Your task to perform on an android device: What's on my calendar today? Image 0: 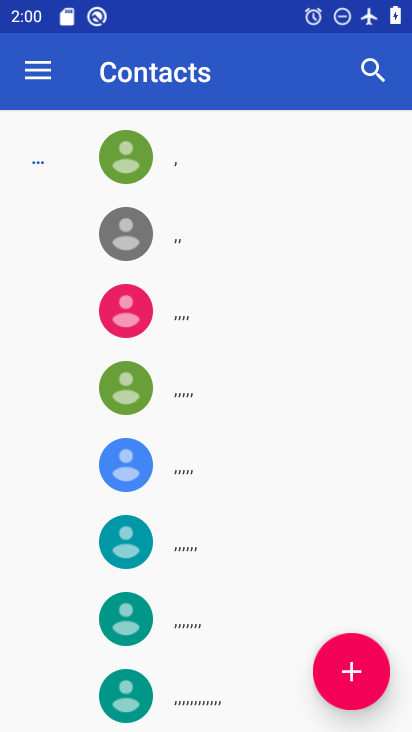
Step 0: press home button
Your task to perform on an android device: What's on my calendar today? Image 1: 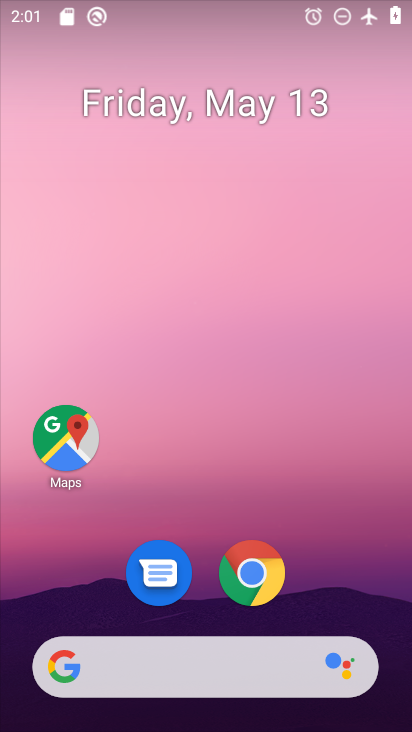
Step 1: drag from (196, 712) to (210, 3)
Your task to perform on an android device: What's on my calendar today? Image 2: 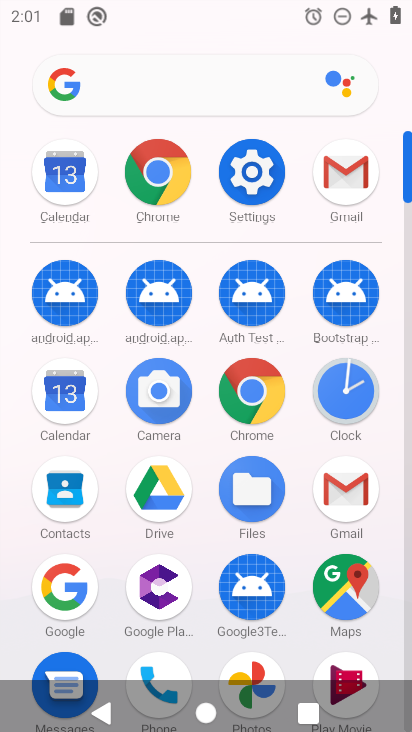
Step 2: click (60, 401)
Your task to perform on an android device: What's on my calendar today? Image 3: 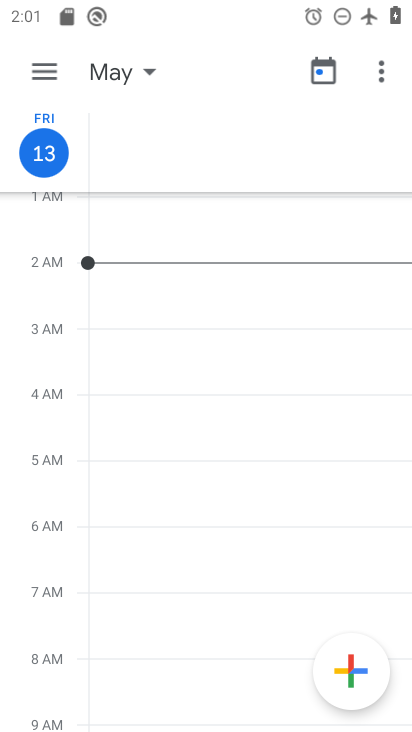
Step 3: task complete